Your task to perform on an android device: toggle improve location accuracy Image 0: 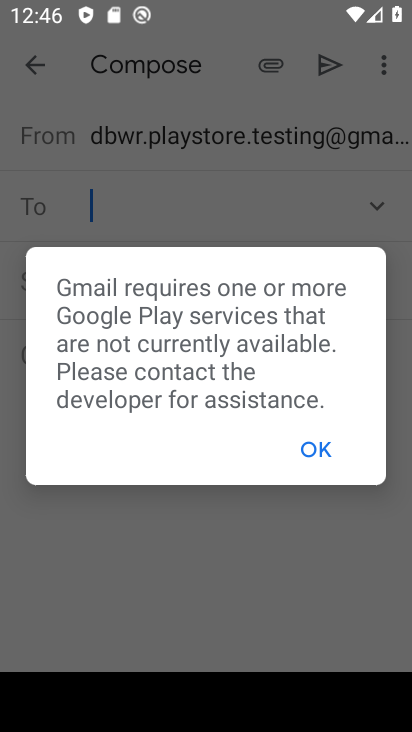
Step 0: press home button
Your task to perform on an android device: toggle improve location accuracy Image 1: 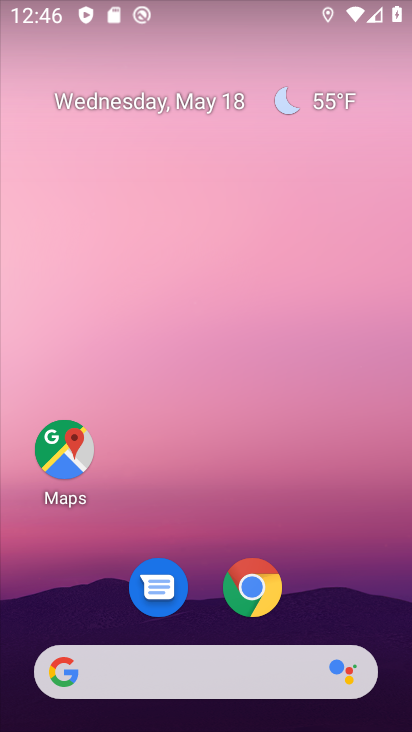
Step 1: drag from (178, 643) to (213, 91)
Your task to perform on an android device: toggle improve location accuracy Image 2: 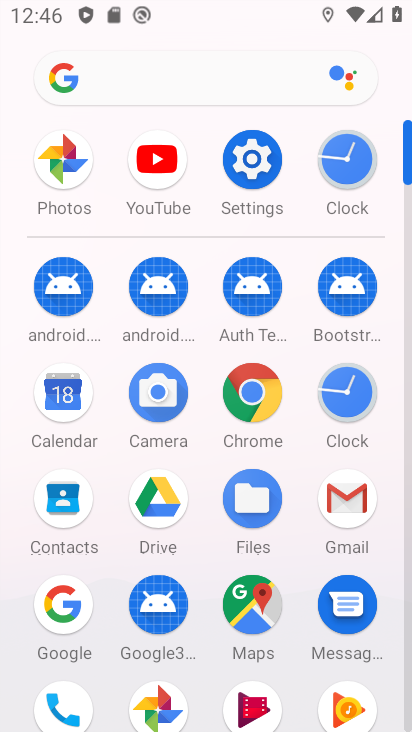
Step 2: click (250, 175)
Your task to perform on an android device: toggle improve location accuracy Image 3: 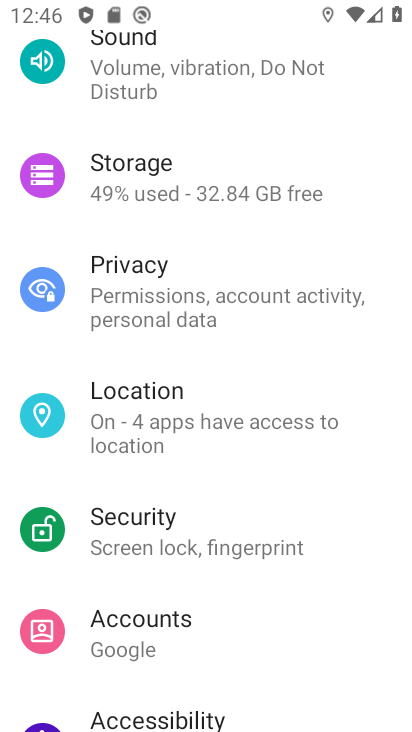
Step 3: click (140, 423)
Your task to perform on an android device: toggle improve location accuracy Image 4: 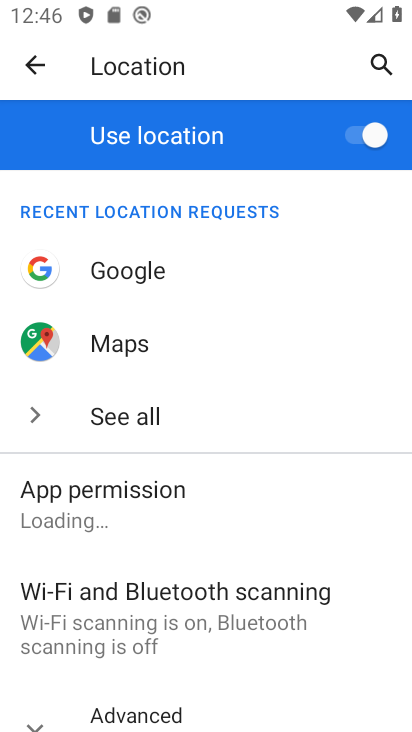
Step 4: drag from (148, 618) to (270, 132)
Your task to perform on an android device: toggle improve location accuracy Image 5: 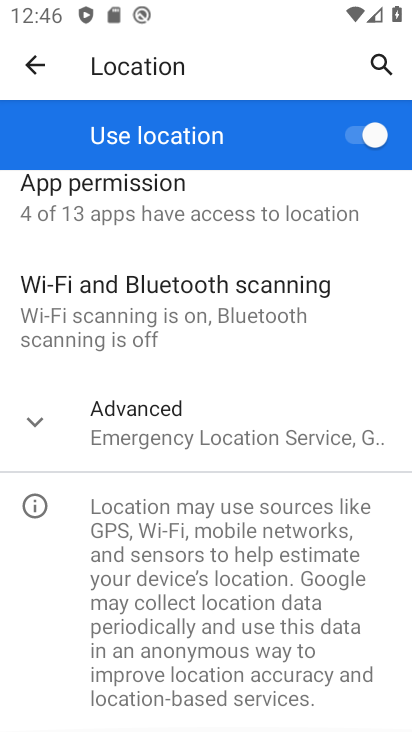
Step 5: click (186, 415)
Your task to perform on an android device: toggle improve location accuracy Image 6: 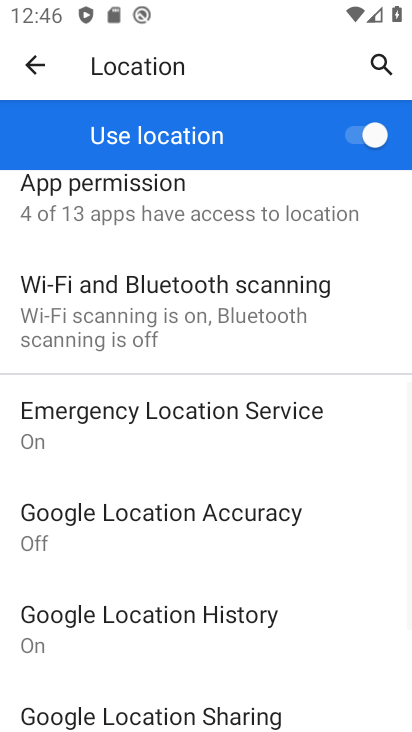
Step 6: click (230, 523)
Your task to perform on an android device: toggle improve location accuracy Image 7: 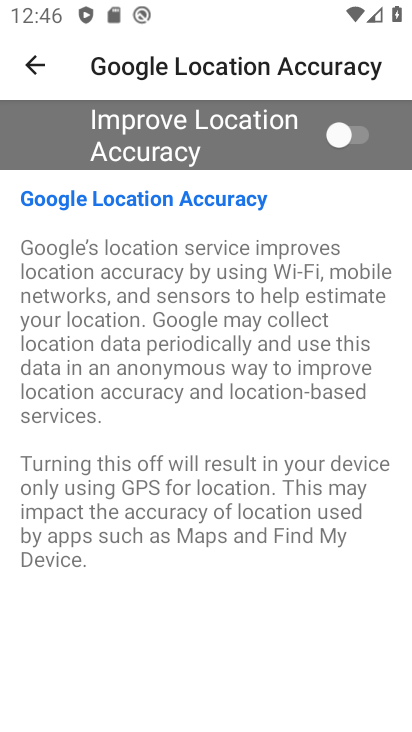
Step 7: click (331, 136)
Your task to perform on an android device: toggle improve location accuracy Image 8: 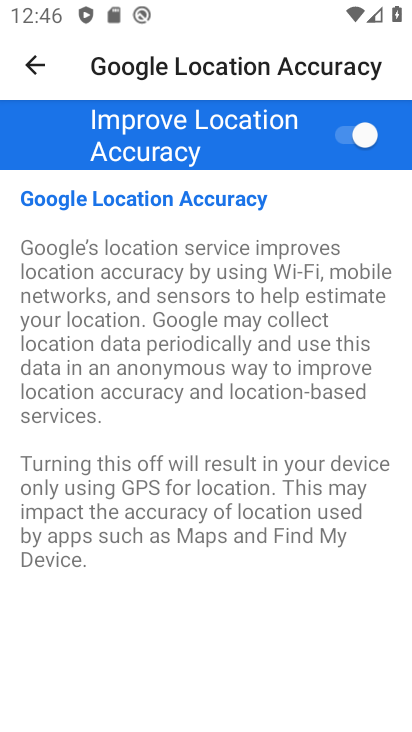
Step 8: task complete